Your task to perform on an android device: Open Google Chrome Image 0: 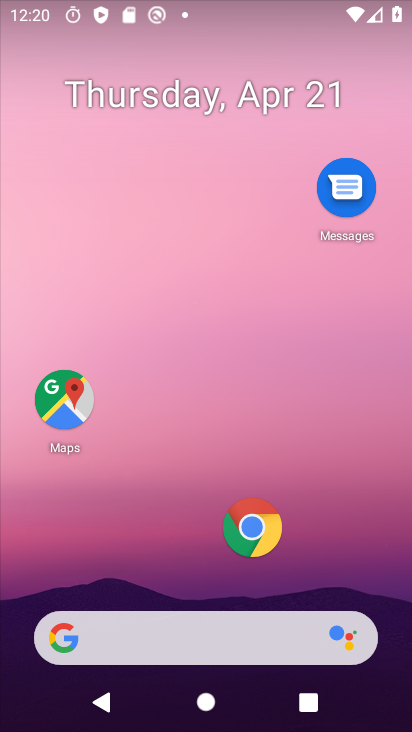
Step 0: drag from (205, 575) to (355, 42)
Your task to perform on an android device: Open Google Chrome Image 1: 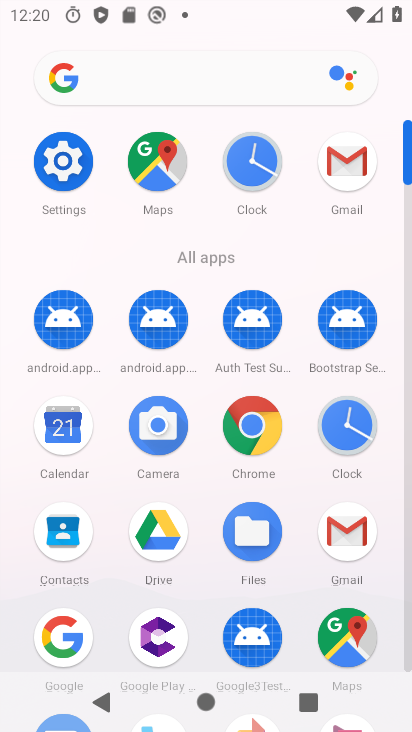
Step 1: click (247, 428)
Your task to perform on an android device: Open Google Chrome Image 2: 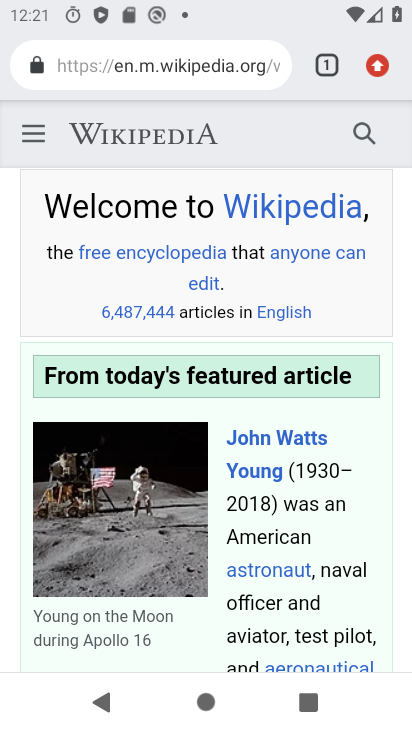
Step 2: task complete